Your task to perform on an android device: What's on my calendar today? Image 0: 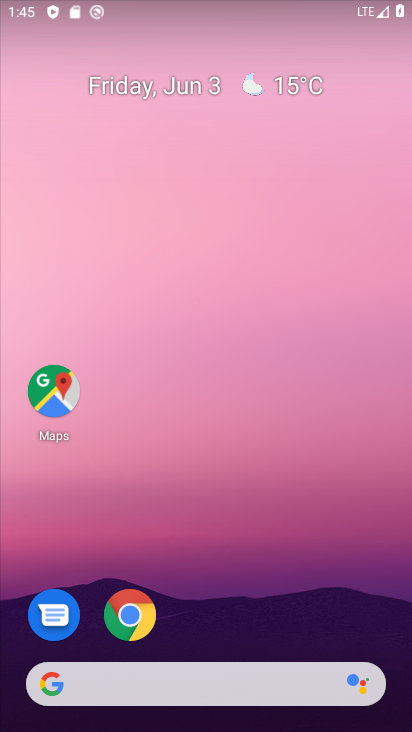
Step 0: drag from (200, 616) to (203, 146)
Your task to perform on an android device: What's on my calendar today? Image 1: 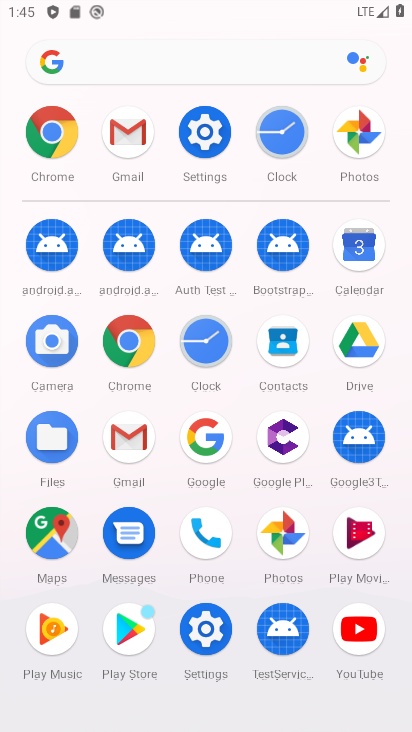
Step 1: click (360, 260)
Your task to perform on an android device: What's on my calendar today? Image 2: 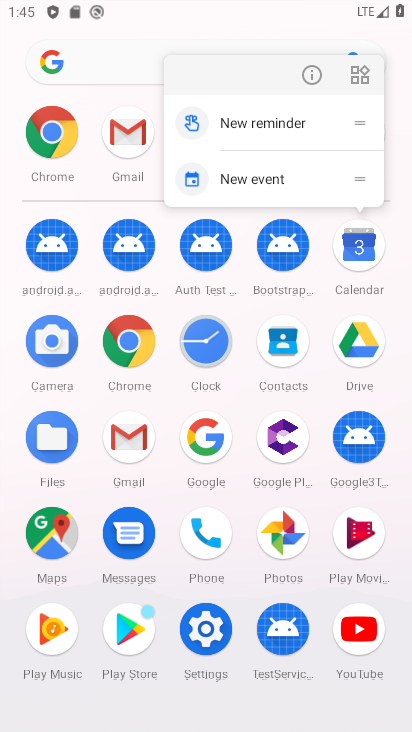
Step 2: click (313, 80)
Your task to perform on an android device: What's on my calendar today? Image 3: 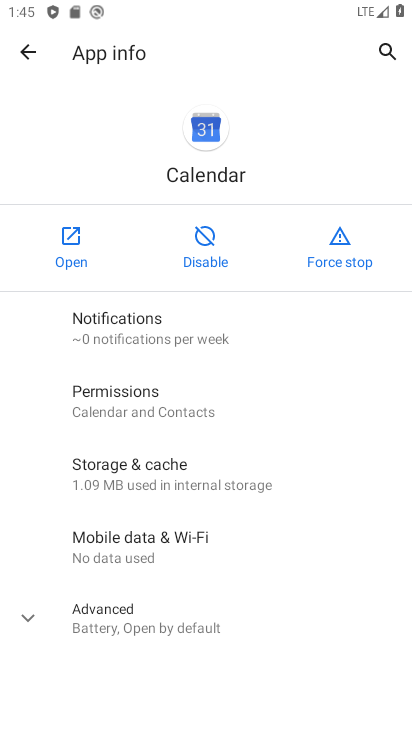
Step 3: click (80, 265)
Your task to perform on an android device: What's on my calendar today? Image 4: 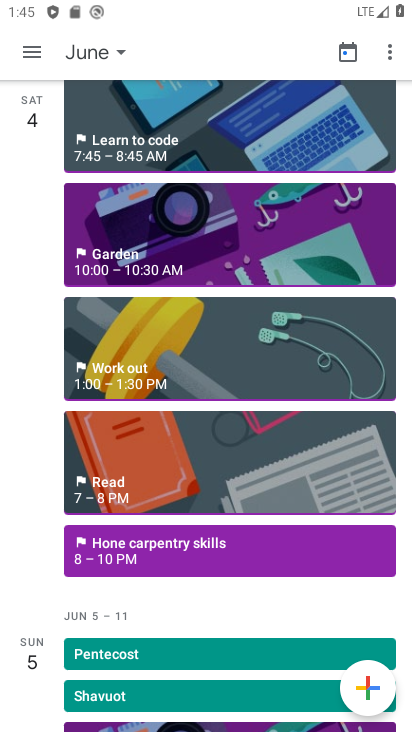
Step 4: drag from (315, 569) to (316, 409)
Your task to perform on an android device: What's on my calendar today? Image 5: 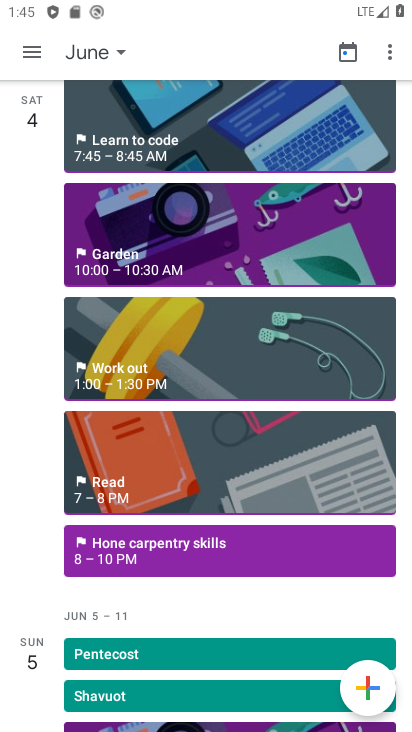
Step 5: drag from (324, 307) to (321, 672)
Your task to perform on an android device: What's on my calendar today? Image 6: 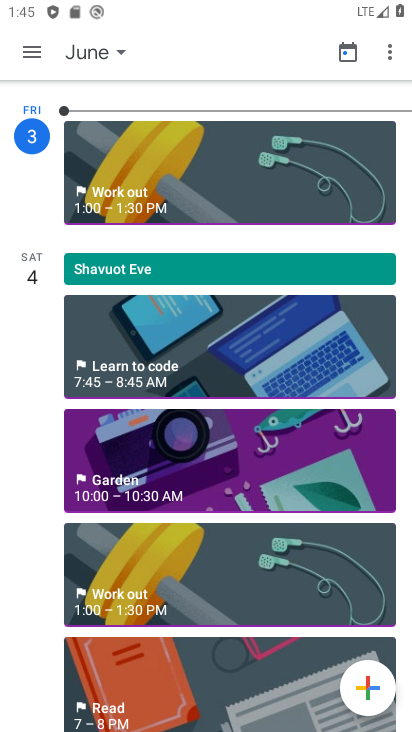
Step 6: click (110, 64)
Your task to perform on an android device: What's on my calendar today? Image 7: 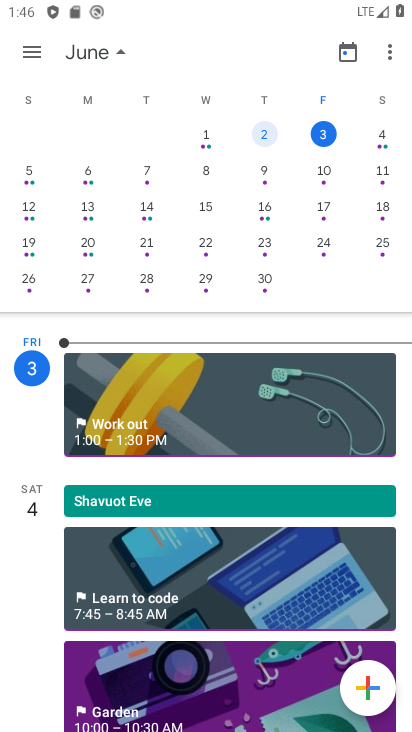
Step 7: click (260, 131)
Your task to perform on an android device: What's on my calendar today? Image 8: 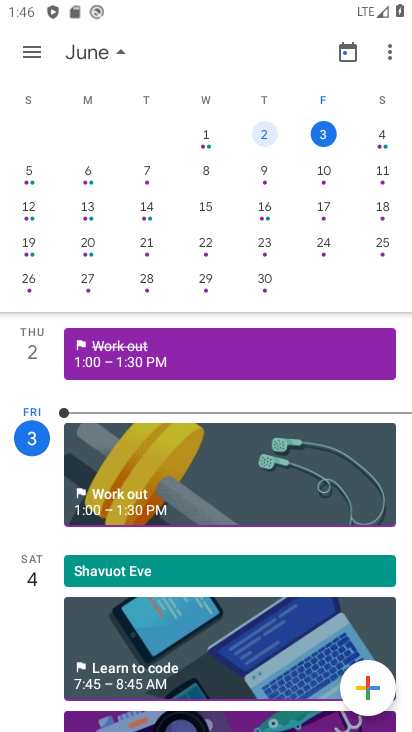
Step 8: task complete